Your task to perform on an android device: toggle pop-ups in chrome Image 0: 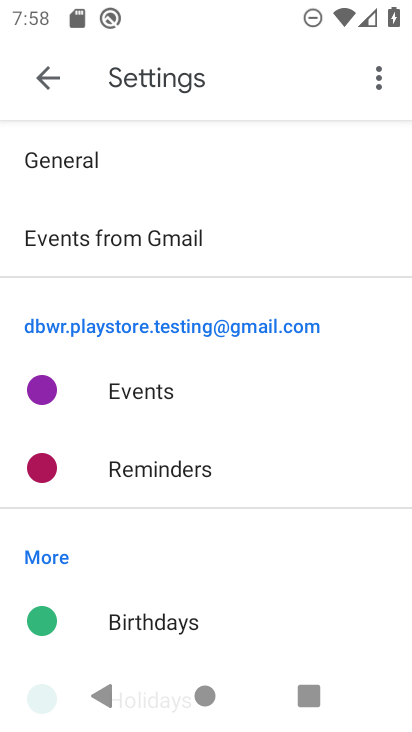
Step 0: press home button
Your task to perform on an android device: toggle pop-ups in chrome Image 1: 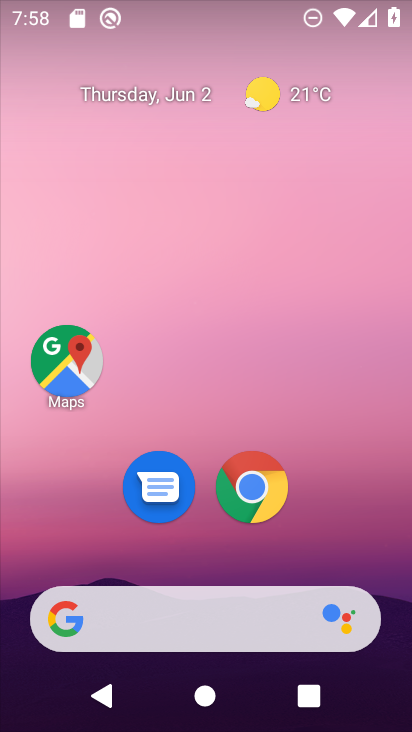
Step 1: click (248, 492)
Your task to perform on an android device: toggle pop-ups in chrome Image 2: 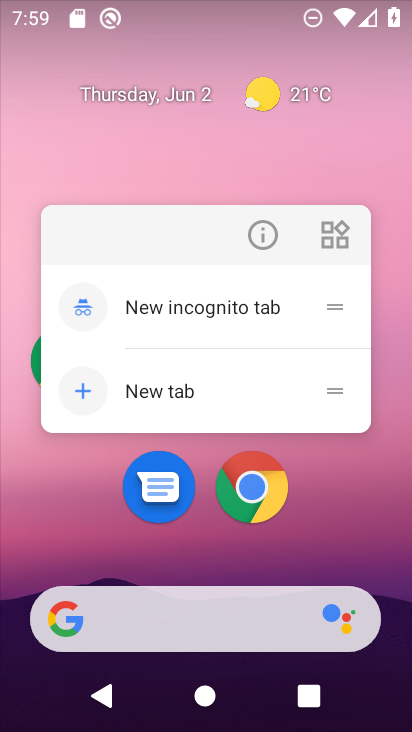
Step 2: click (260, 242)
Your task to perform on an android device: toggle pop-ups in chrome Image 3: 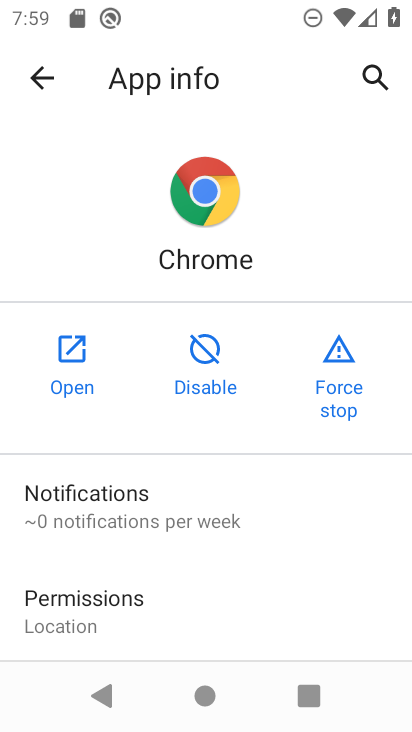
Step 3: click (69, 370)
Your task to perform on an android device: toggle pop-ups in chrome Image 4: 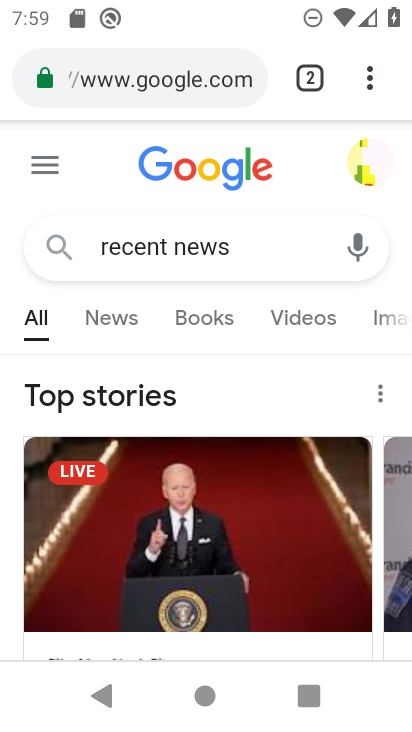
Step 4: click (376, 75)
Your task to perform on an android device: toggle pop-ups in chrome Image 5: 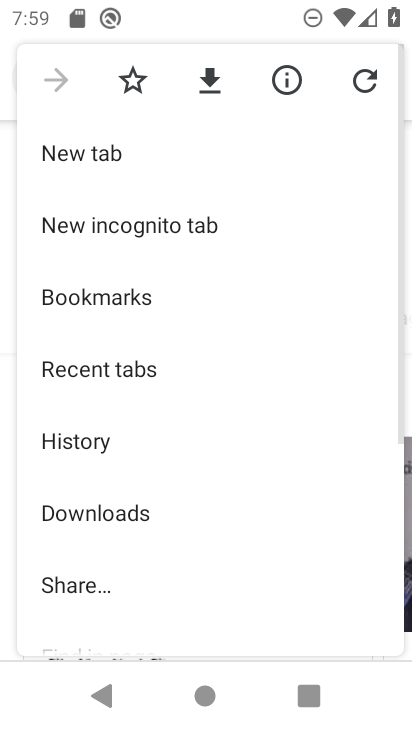
Step 5: drag from (154, 508) to (180, 234)
Your task to perform on an android device: toggle pop-ups in chrome Image 6: 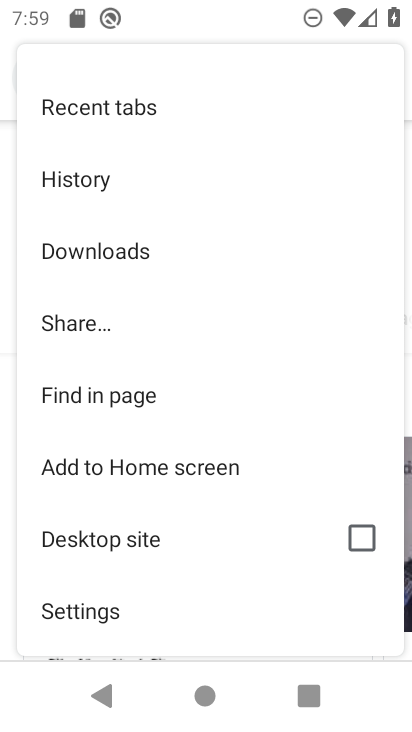
Step 6: click (65, 602)
Your task to perform on an android device: toggle pop-ups in chrome Image 7: 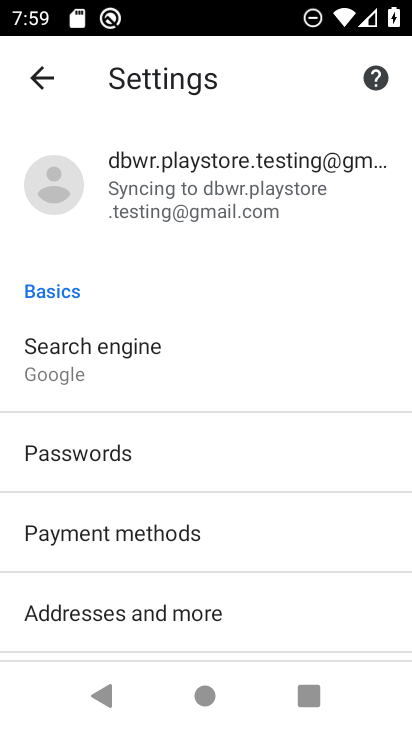
Step 7: drag from (251, 530) to (258, 207)
Your task to perform on an android device: toggle pop-ups in chrome Image 8: 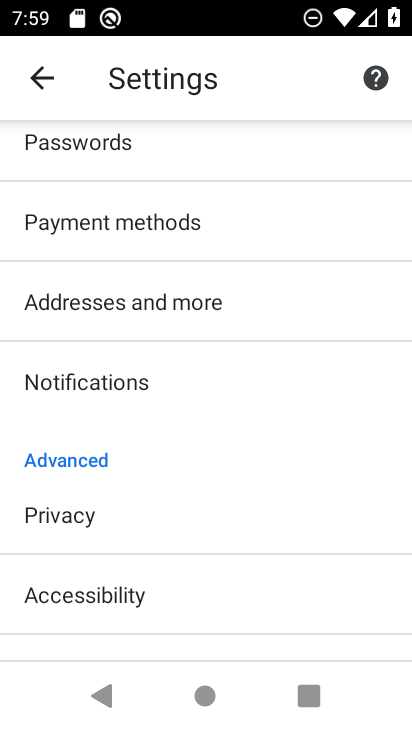
Step 8: drag from (180, 601) to (217, 231)
Your task to perform on an android device: toggle pop-ups in chrome Image 9: 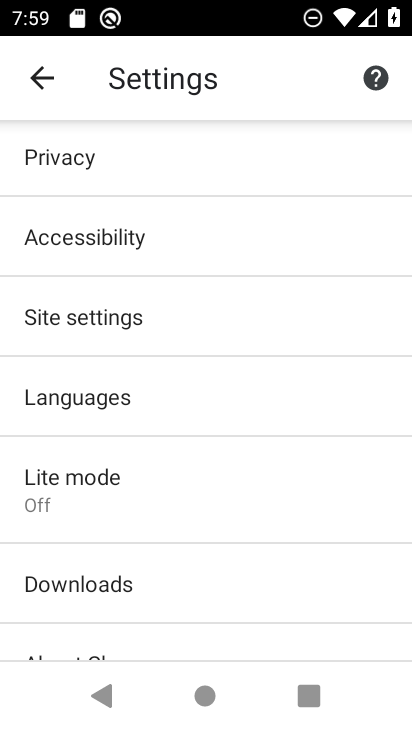
Step 9: click (77, 317)
Your task to perform on an android device: toggle pop-ups in chrome Image 10: 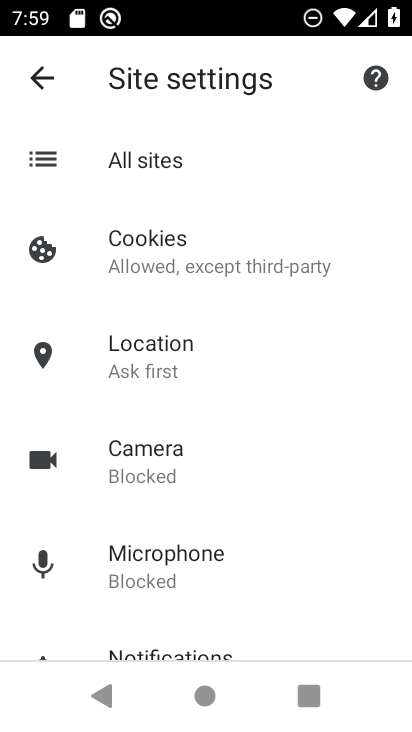
Step 10: drag from (160, 580) to (207, 247)
Your task to perform on an android device: toggle pop-ups in chrome Image 11: 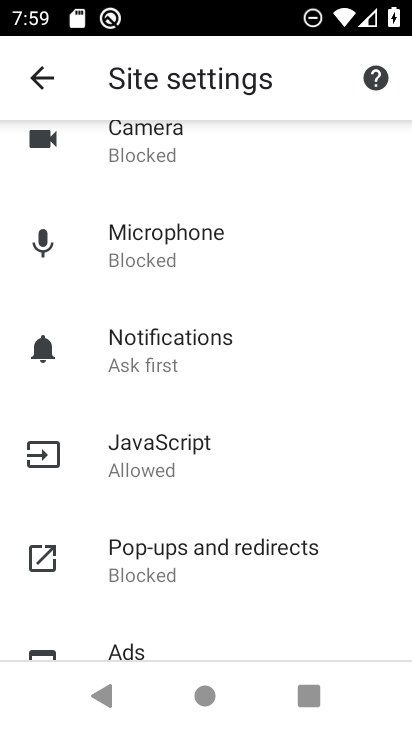
Step 11: click (170, 575)
Your task to perform on an android device: toggle pop-ups in chrome Image 12: 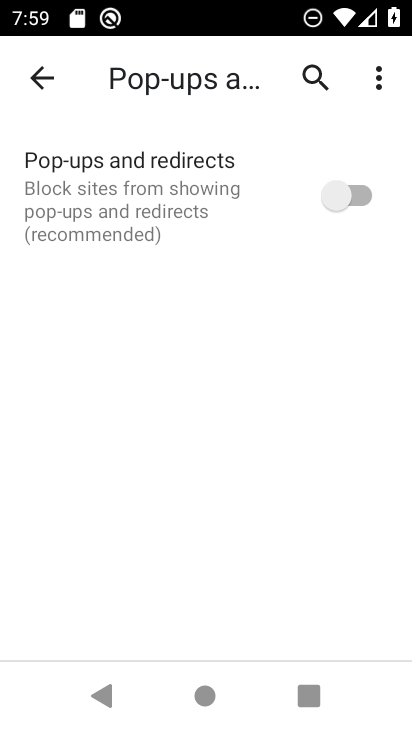
Step 12: click (339, 200)
Your task to perform on an android device: toggle pop-ups in chrome Image 13: 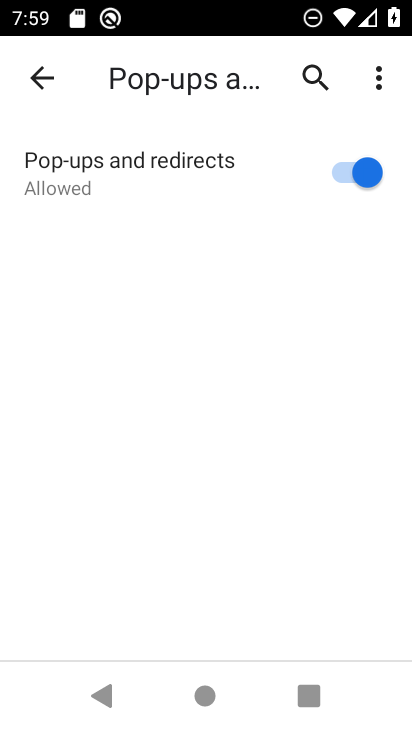
Step 13: task complete